Your task to perform on an android device: Is it going to rain tomorrow? Image 0: 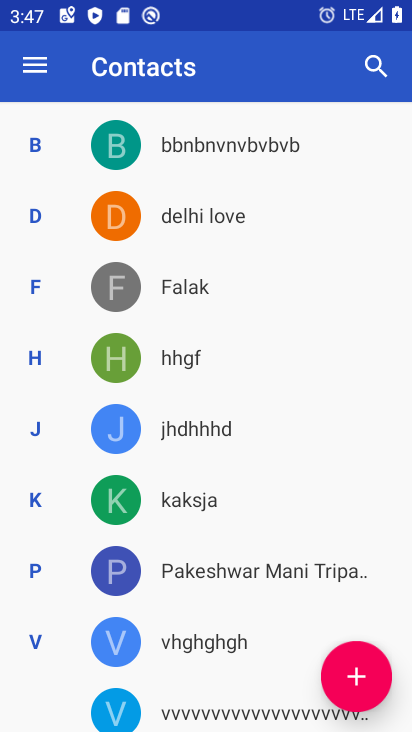
Step 0: press home button
Your task to perform on an android device: Is it going to rain tomorrow? Image 1: 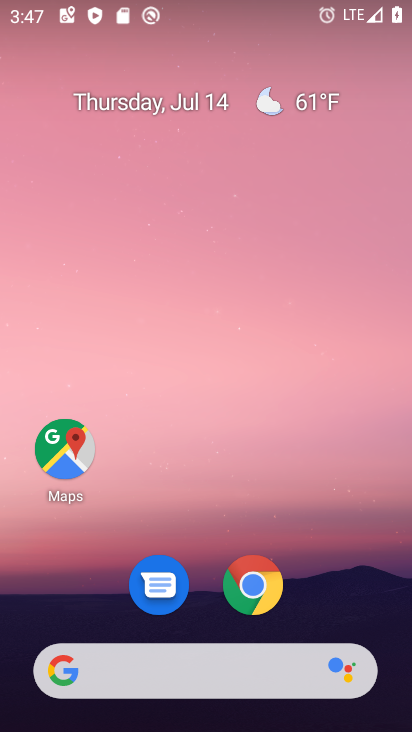
Step 1: click (191, 676)
Your task to perform on an android device: Is it going to rain tomorrow? Image 2: 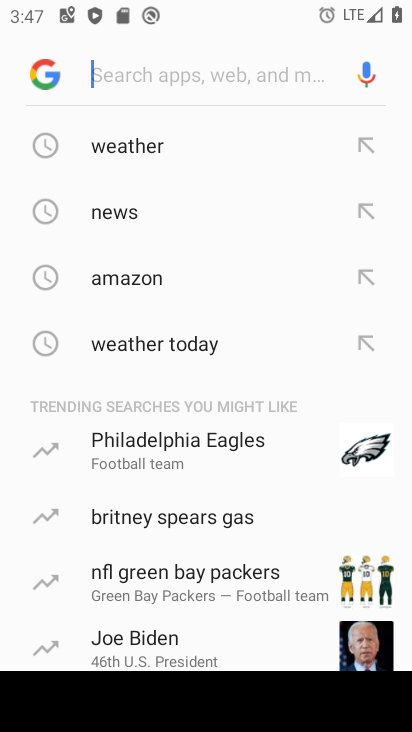
Step 2: click (143, 150)
Your task to perform on an android device: Is it going to rain tomorrow? Image 3: 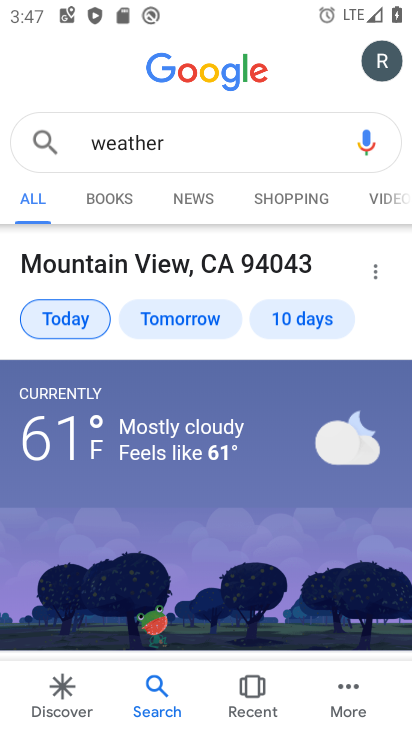
Step 3: click (80, 309)
Your task to perform on an android device: Is it going to rain tomorrow? Image 4: 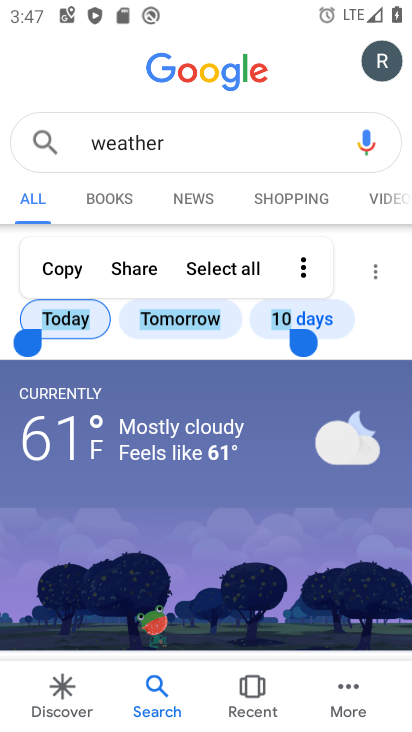
Step 4: click (85, 310)
Your task to perform on an android device: Is it going to rain tomorrow? Image 5: 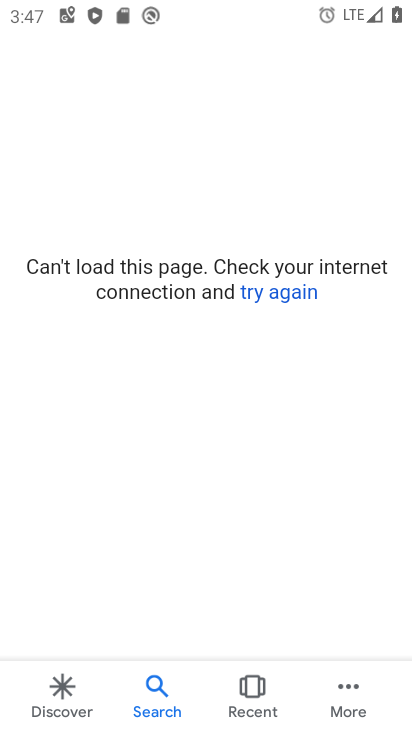
Step 5: click (299, 282)
Your task to perform on an android device: Is it going to rain tomorrow? Image 6: 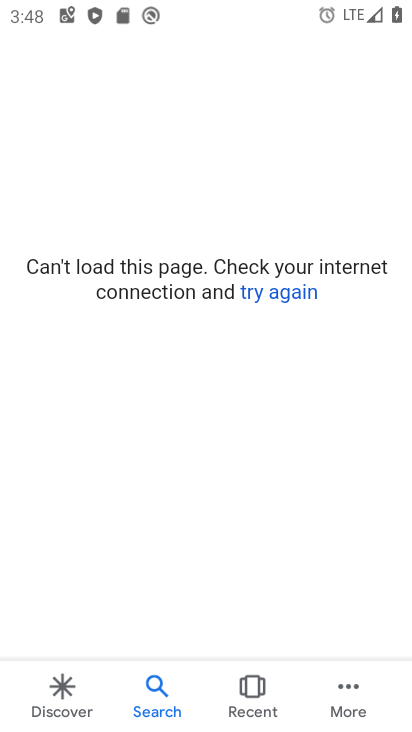
Step 6: task complete